Your task to perform on an android device: change your default location settings in chrome Image 0: 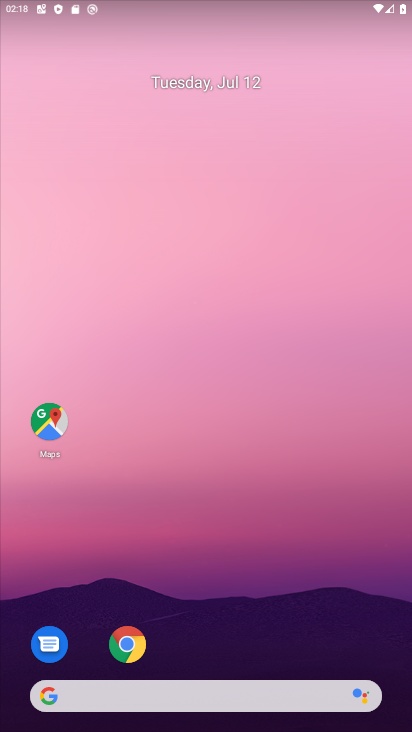
Step 0: click (131, 642)
Your task to perform on an android device: change your default location settings in chrome Image 1: 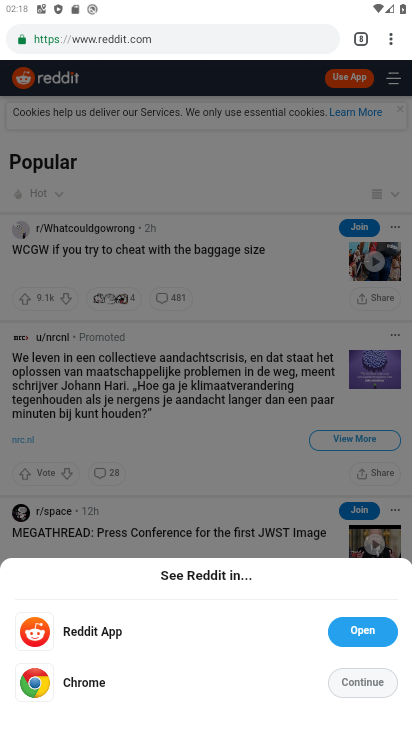
Step 1: drag from (389, 38) to (253, 466)
Your task to perform on an android device: change your default location settings in chrome Image 2: 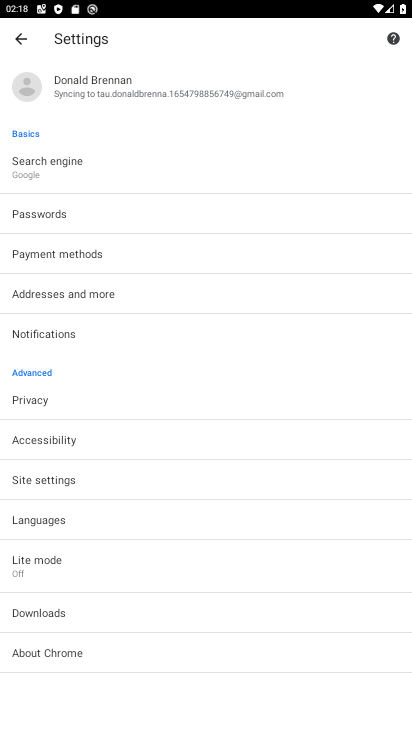
Step 2: click (44, 482)
Your task to perform on an android device: change your default location settings in chrome Image 3: 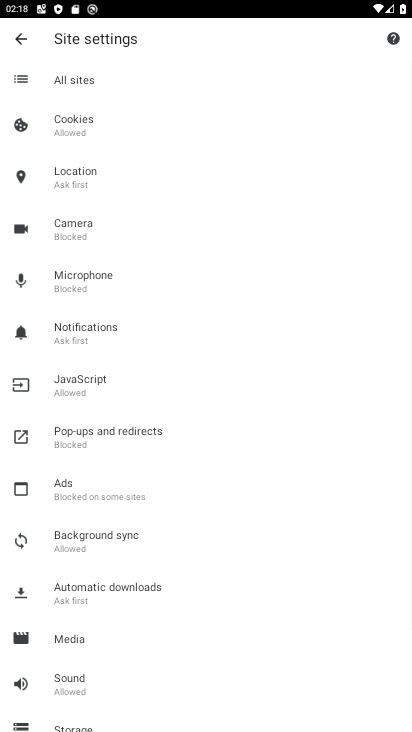
Step 3: click (79, 189)
Your task to perform on an android device: change your default location settings in chrome Image 4: 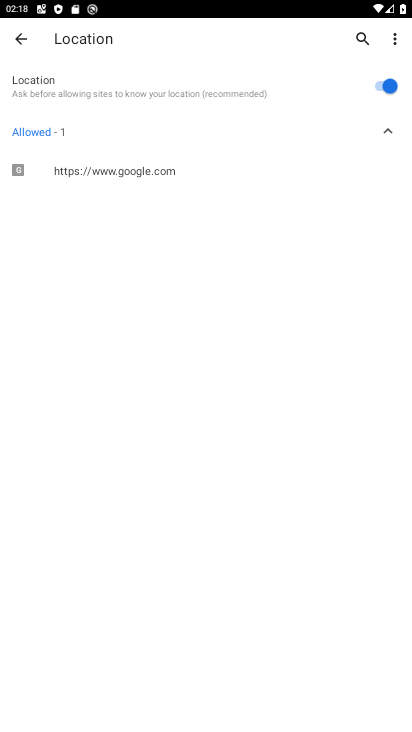
Step 4: click (384, 77)
Your task to perform on an android device: change your default location settings in chrome Image 5: 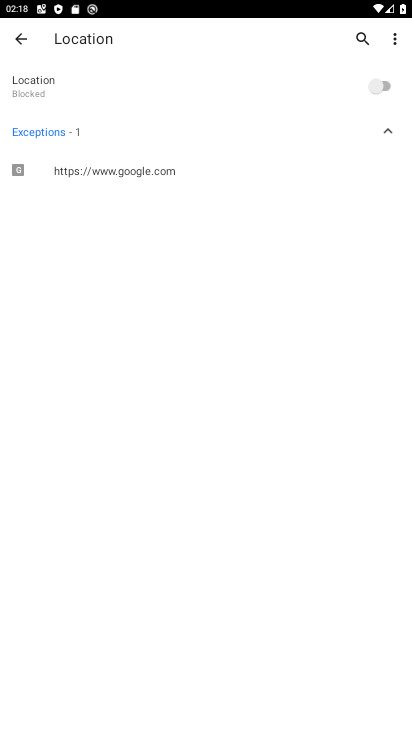
Step 5: task complete